Your task to perform on an android device: toggle priority inbox in the gmail app Image 0: 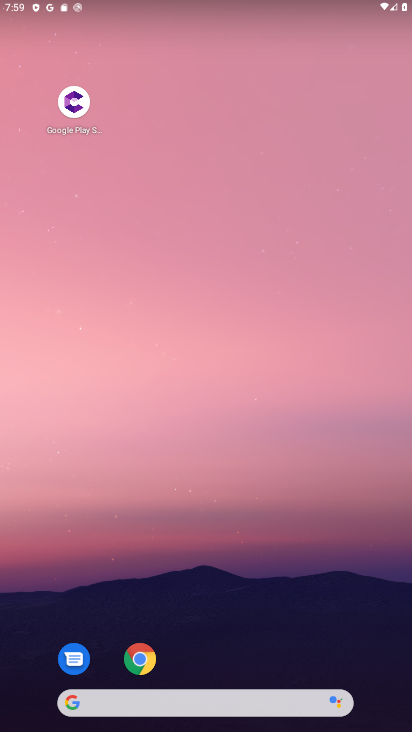
Step 0: drag from (195, 650) to (217, 185)
Your task to perform on an android device: toggle priority inbox in the gmail app Image 1: 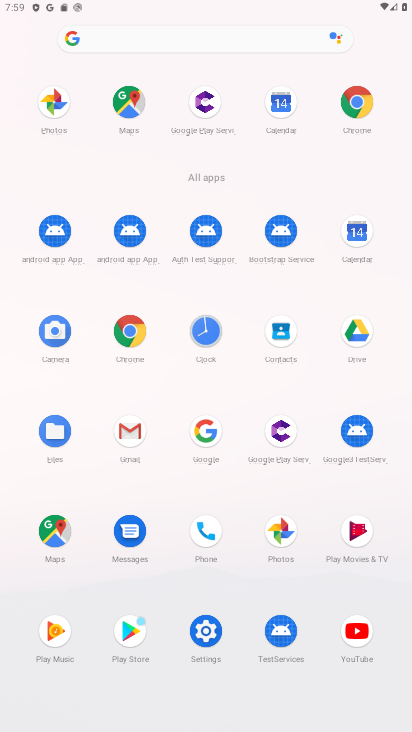
Step 1: click (128, 447)
Your task to perform on an android device: toggle priority inbox in the gmail app Image 2: 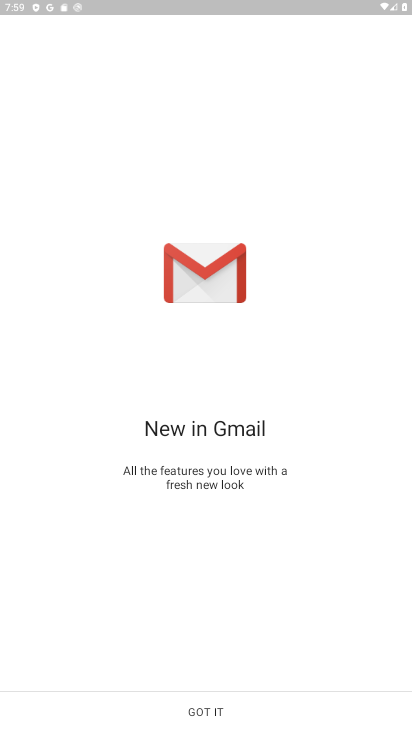
Step 2: click (196, 698)
Your task to perform on an android device: toggle priority inbox in the gmail app Image 3: 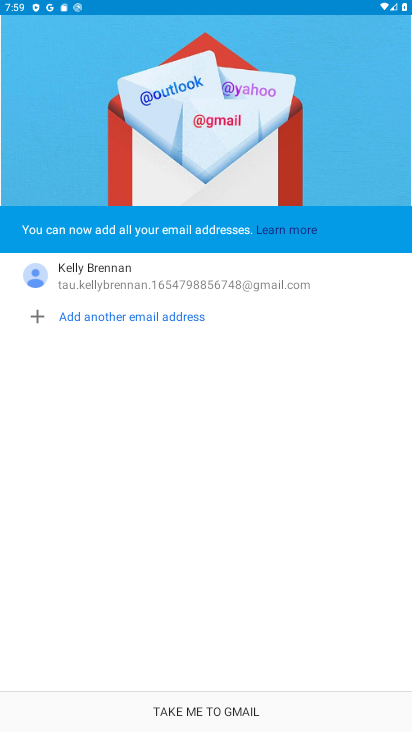
Step 3: click (196, 698)
Your task to perform on an android device: toggle priority inbox in the gmail app Image 4: 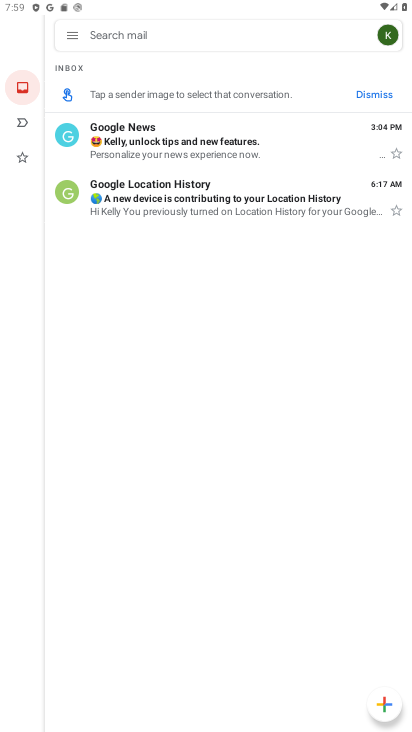
Step 4: click (73, 34)
Your task to perform on an android device: toggle priority inbox in the gmail app Image 5: 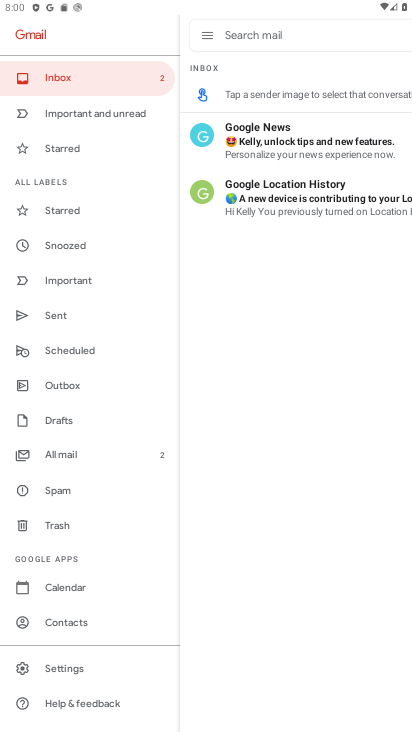
Step 5: click (70, 324)
Your task to perform on an android device: toggle priority inbox in the gmail app Image 6: 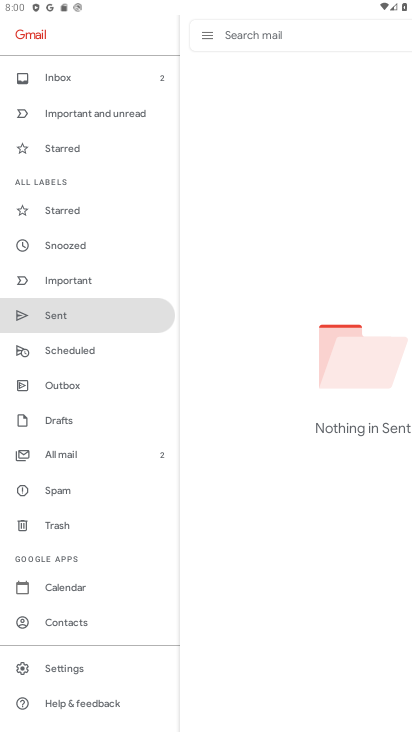
Step 6: click (66, 682)
Your task to perform on an android device: toggle priority inbox in the gmail app Image 7: 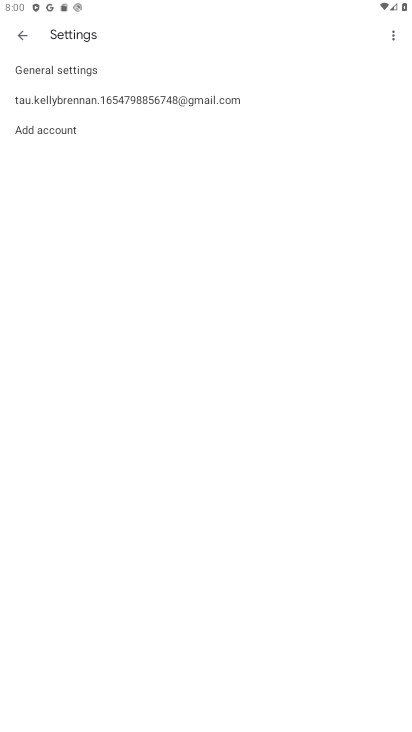
Step 7: click (127, 97)
Your task to perform on an android device: toggle priority inbox in the gmail app Image 8: 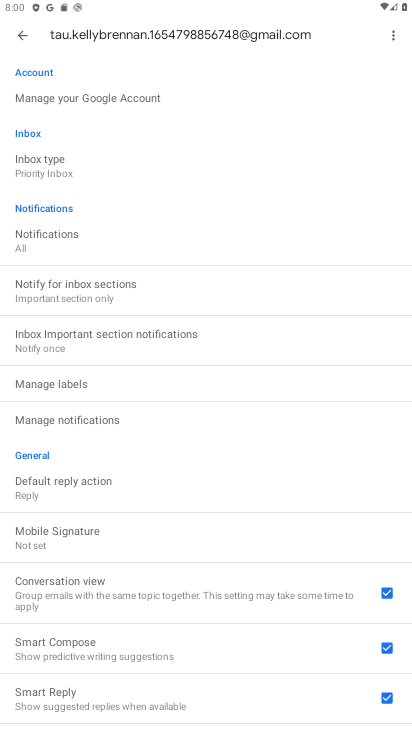
Step 8: click (42, 175)
Your task to perform on an android device: toggle priority inbox in the gmail app Image 9: 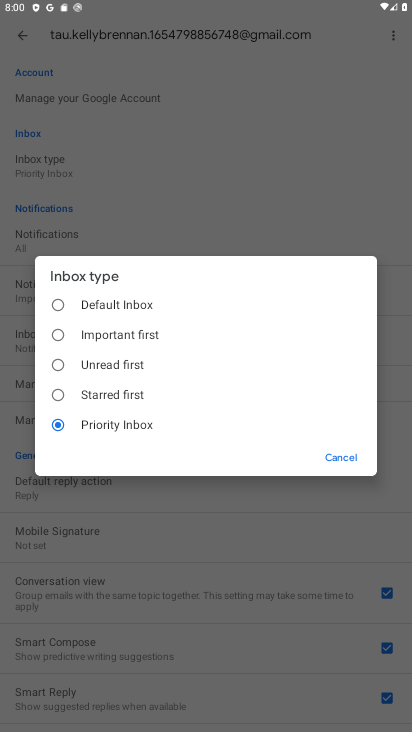
Step 9: click (56, 310)
Your task to perform on an android device: toggle priority inbox in the gmail app Image 10: 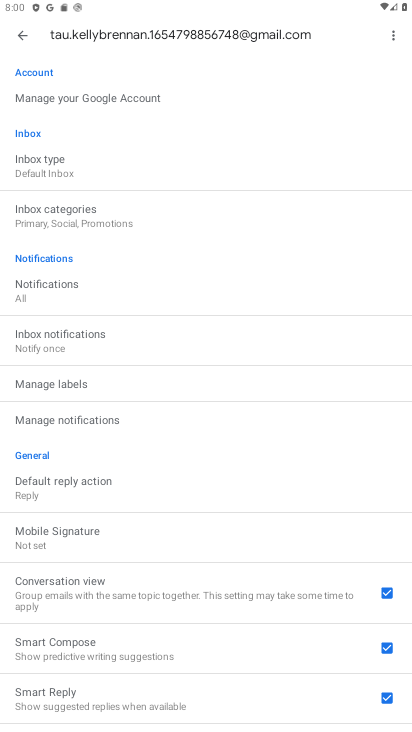
Step 10: task complete